Your task to perform on an android device: set the timer Image 0: 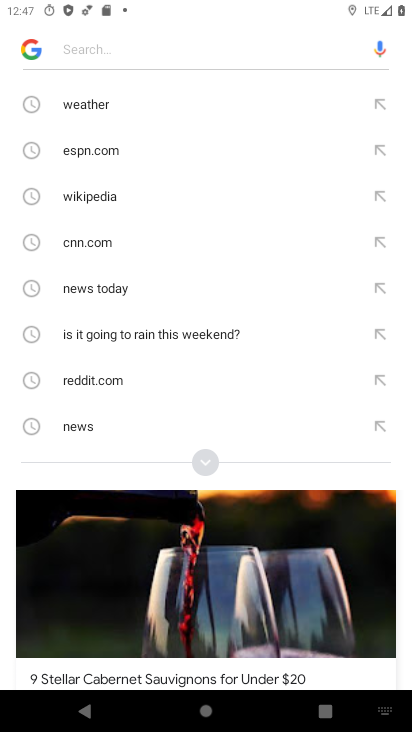
Step 0: press home button
Your task to perform on an android device: set the timer Image 1: 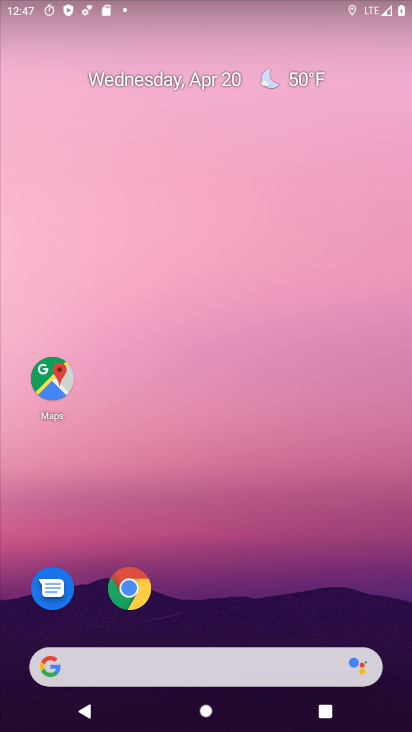
Step 1: drag from (217, 635) to (203, 59)
Your task to perform on an android device: set the timer Image 2: 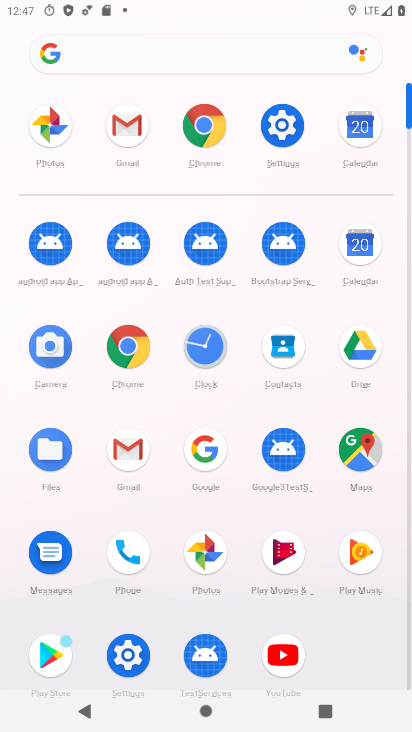
Step 2: click (213, 355)
Your task to perform on an android device: set the timer Image 3: 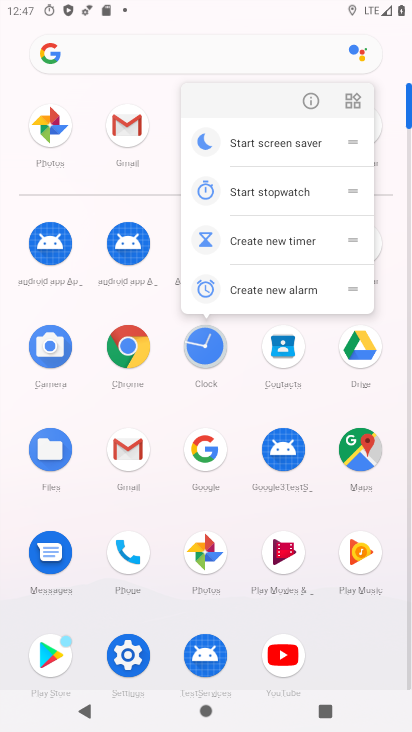
Step 3: click (201, 350)
Your task to perform on an android device: set the timer Image 4: 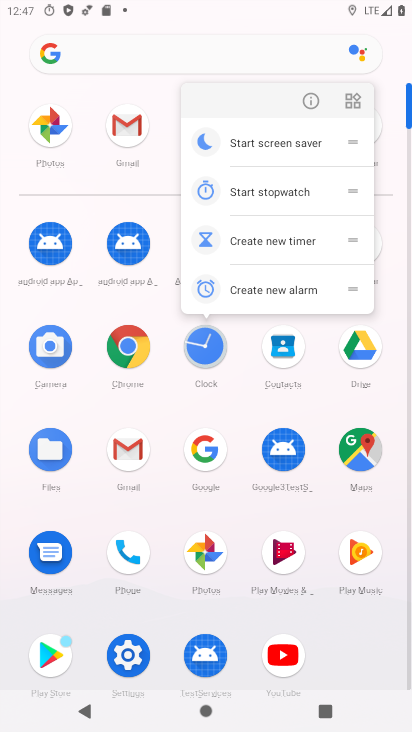
Step 4: click (192, 335)
Your task to perform on an android device: set the timer Image 5: 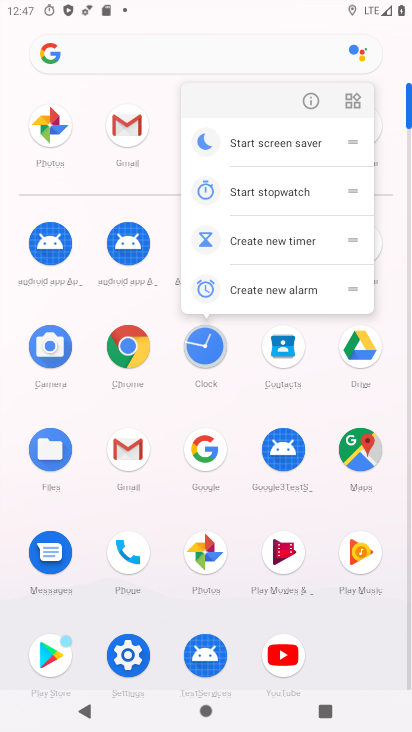
Step 5: click (198, 344)
Your task to perform on an android device: set the timer Image 6: 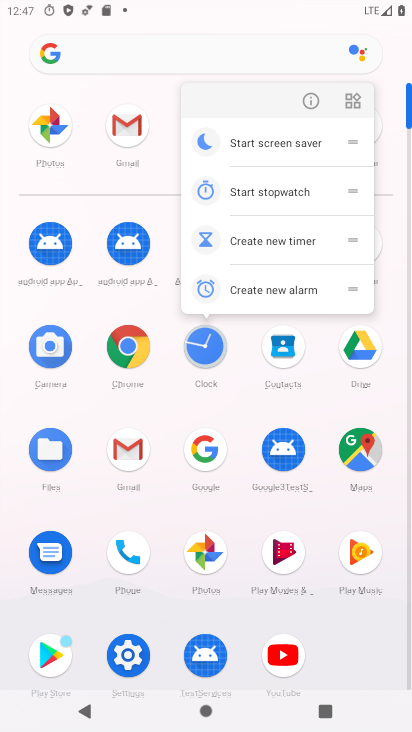
Step 6: click (216, 350)
Your task to perform on an android device: set the timer Image 7: 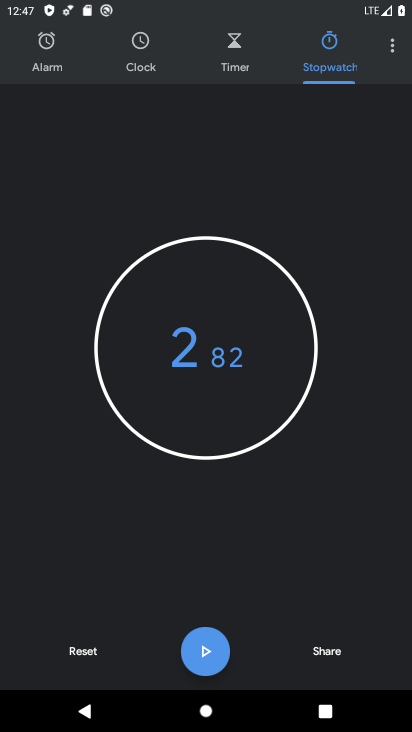
Step 7: click (239, 53)
Your task to perform on an android device: set the timer Image 8: 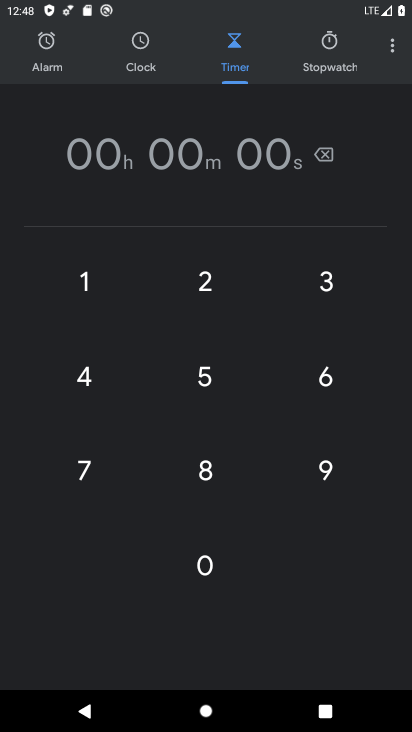
Step 8: click (189, 295)
Your task to perform on an android device: set the timer Image 9: 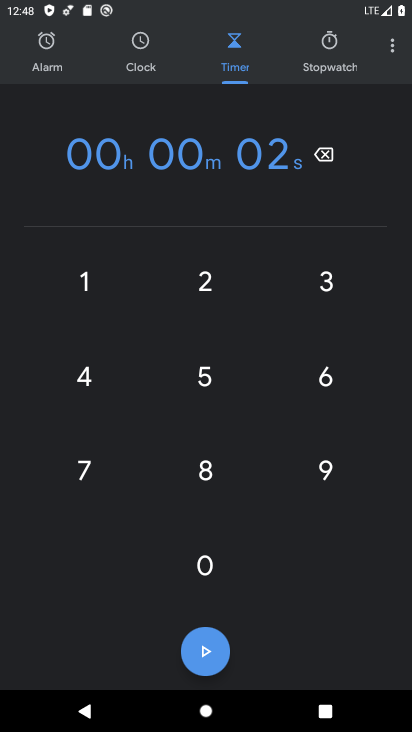
Step 9: click (212, 340)
Your task to perform on an android device: set the timer Image 10: 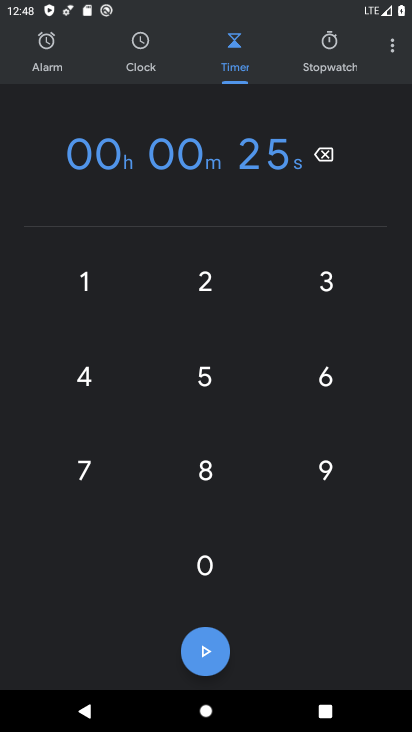
Step 10: task complete